Your task to perform on an android device: Is it going to rain tomorrow? Image 0: 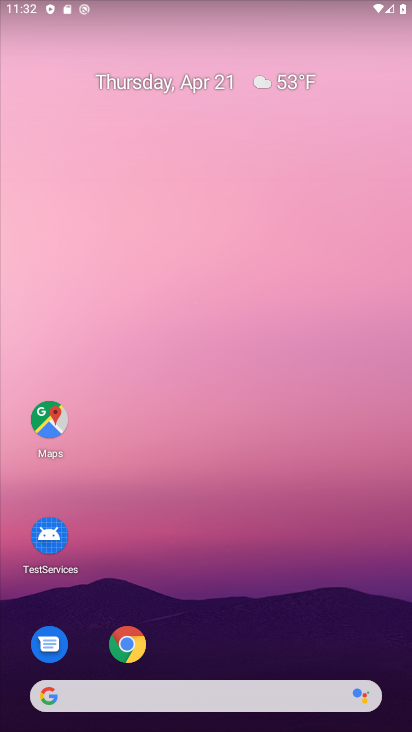
Step 0: drag from (269, 620) to (298, 28)
Your task to perform on an android device: Is it going to rain tomorrow? Image 1: 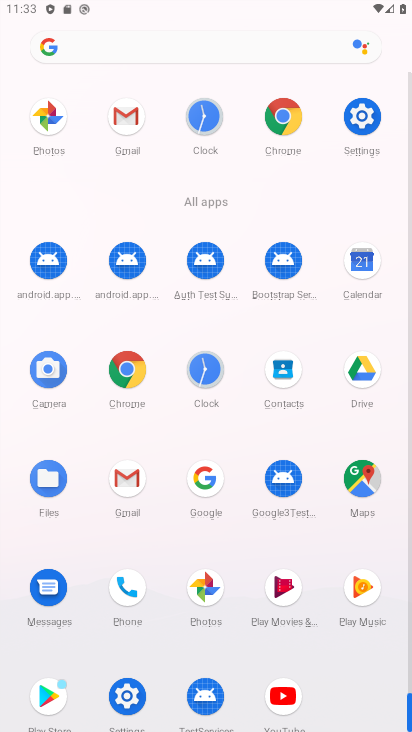
Step 1: click (122, 377)
Your task to perform on an android device: Is it going to rain tomorrow? Image 2: 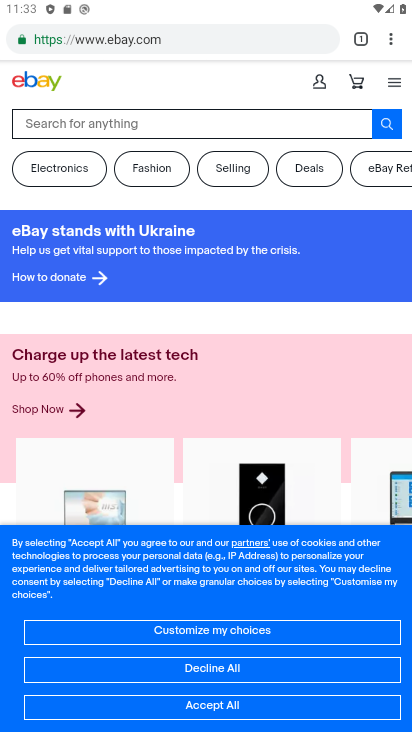
Step 2: click (232, 46)
Your task to perform on an android device: Is it going to rain tomorrow? Image 3: 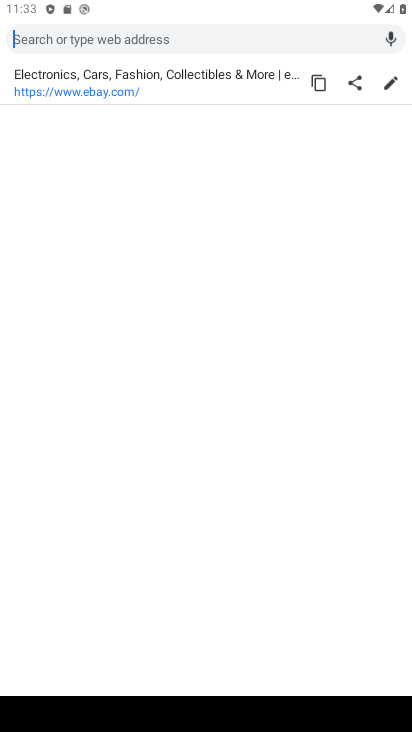
Step 3: type "weather"
Your task to perform on an android device: Is it going to rain tomorrow? Image 4: 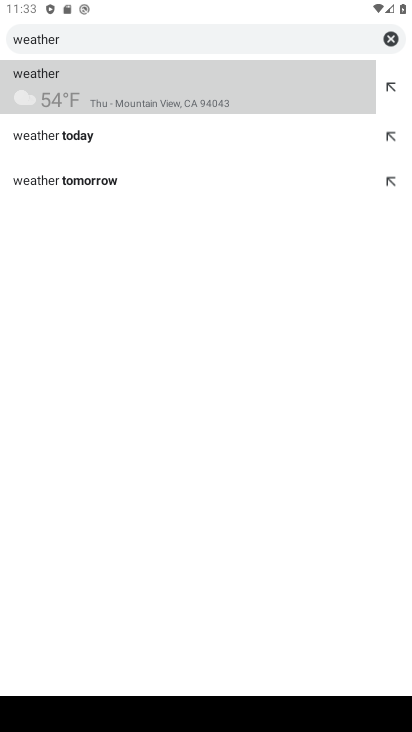
Step 4: click (73, 100)
Your task to perform on an android device: Is it going to rain tomorrow? Image 5: 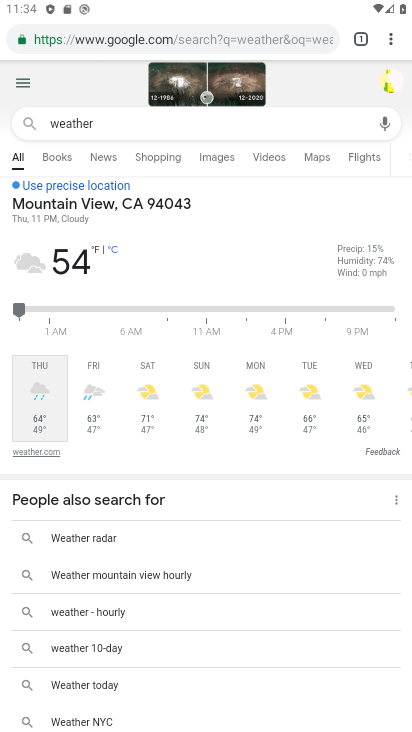
Step 5: task complete